Your task to perform on an android device: Do I have any events today? Image 0: 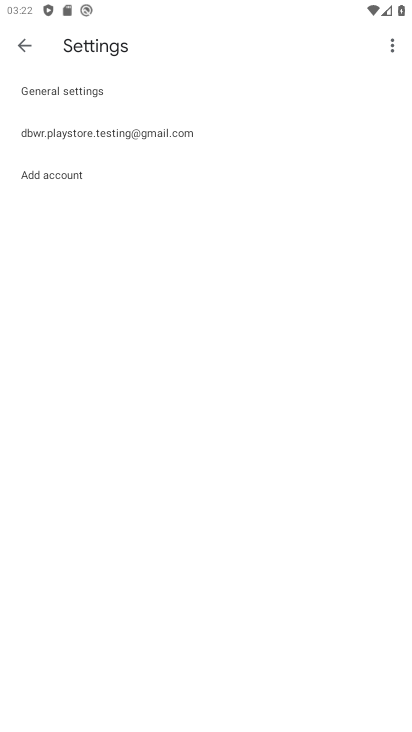
Step 0: press home button
Your task to perform on an android device: Do I have any events today? Image 1: 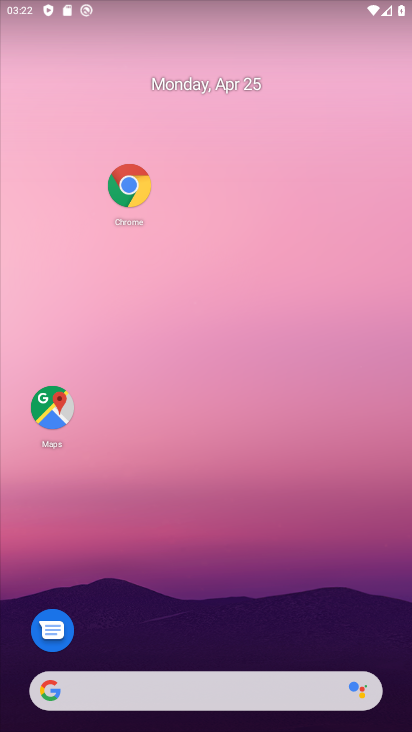
Step 1: drag from (165, 643) to (182, 128)
Your task to perform on an android device: Do I have any events today? Image 2: 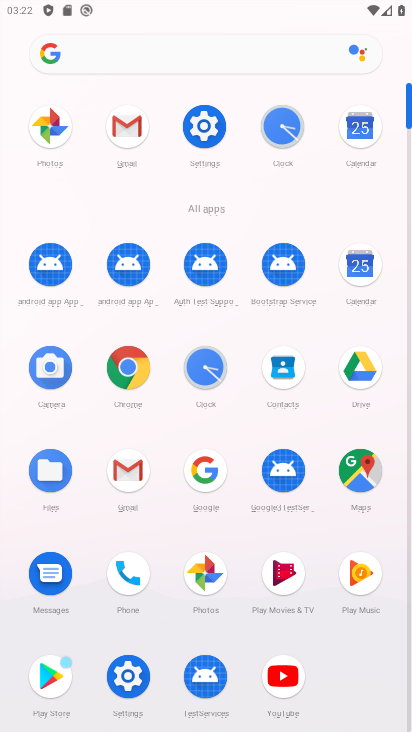
Step 2: click (365, 130)
Your task to perform on an android device: Do I have any events today? Image 3: 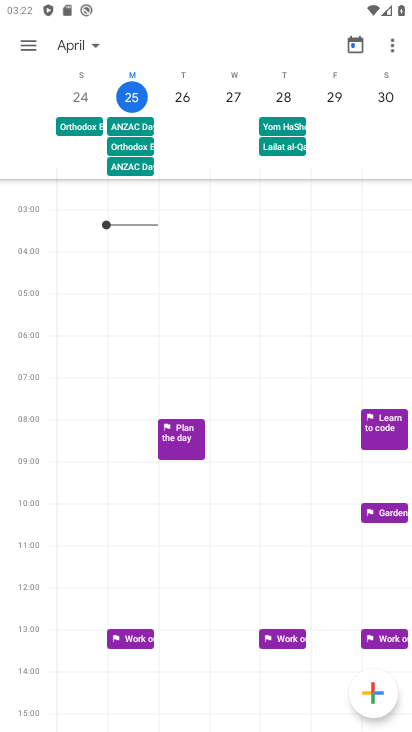
Step 3: click (85, 46)
Your task to perform on an android device: Do I have any events today? Image 4: 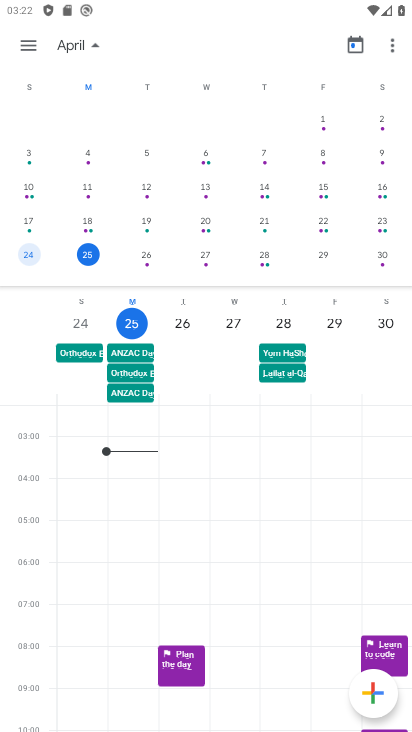
Step 4: click (89, 251)
Your task to perform on an android device: Do I have any events today? Image 5: 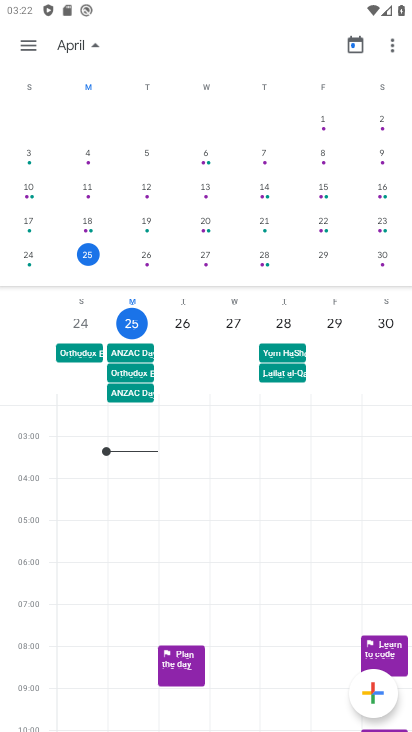
Step 5: task complete